Your task to perform on an android device: Open Chrome and go to settings Image 0: 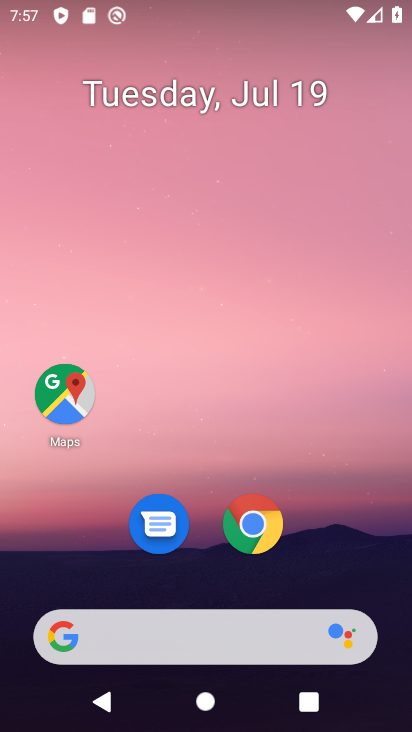
Step 0: click (262, 531)
Your task to perform on an android device: Open Chrome and go to settings Image 1: 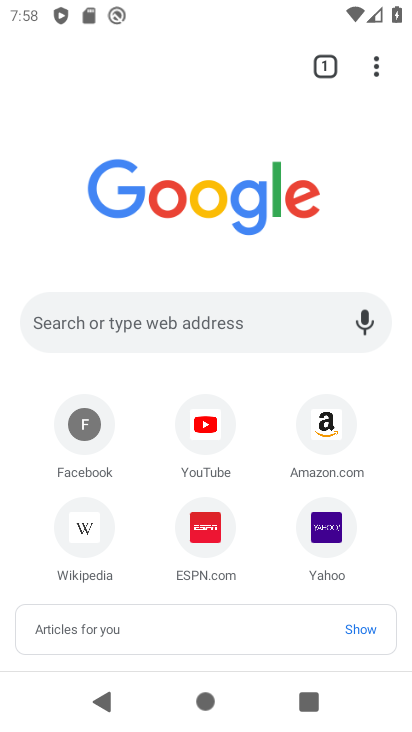
Step 1: click (376, 65)
Your task to perform on an android device: Open Chrome and go to settings Image 2: 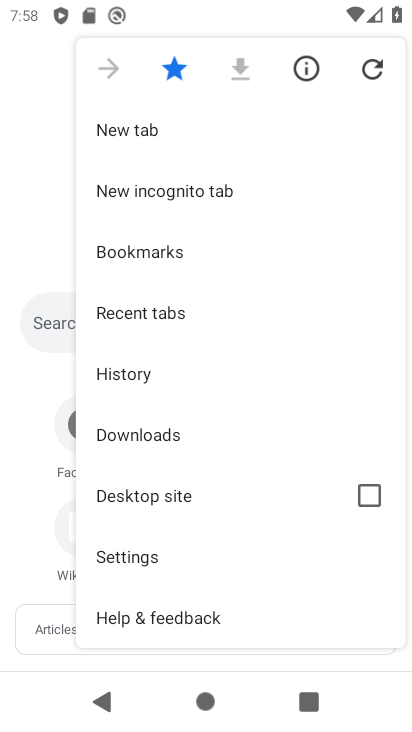
Step 2: click (145, 549)
Your task to perform on an android device: Open Chrome and go to settings Image 3: 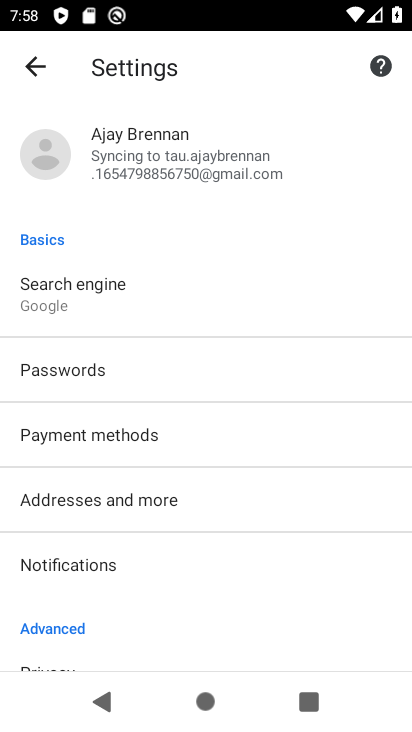
Step 3: task complete